Your task to perform on an android device: turn off translation in the chrome app Image 0: 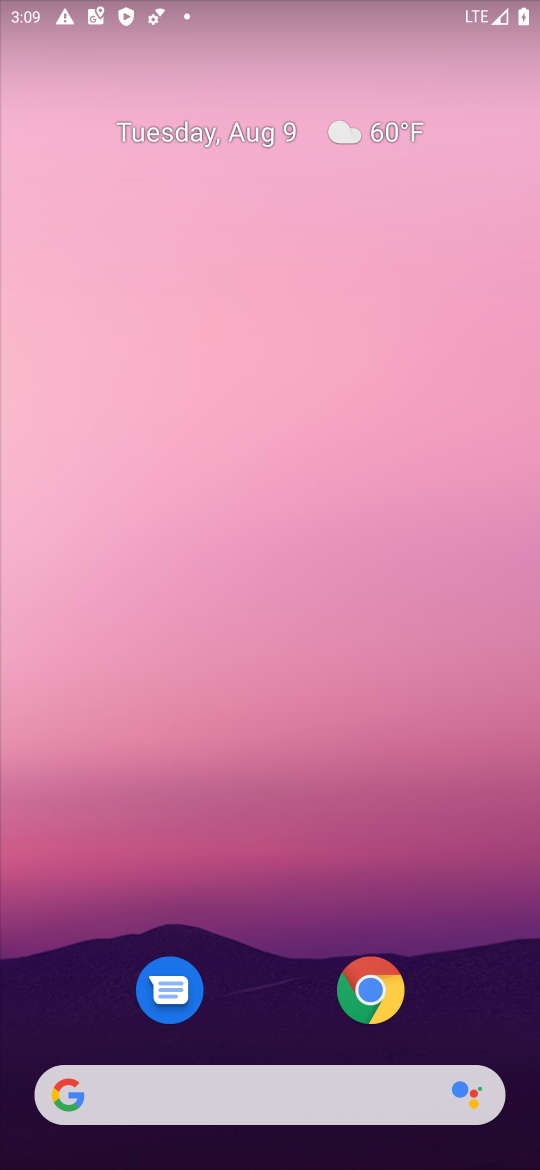
Step 0: task complete